Your task to perform on an android device: Search for Italian restaurants on Maps Image 0: 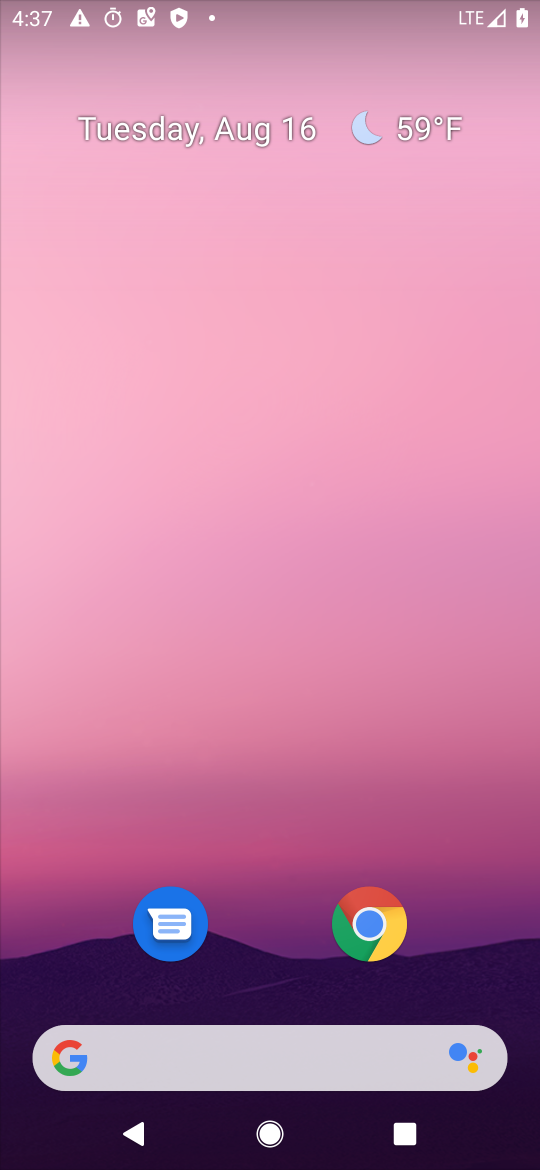
Step 0: drag from (301, 1003) to (315, 3)
Your task to perform on an android device: Search for Italian restaurants on Maps Image 1: 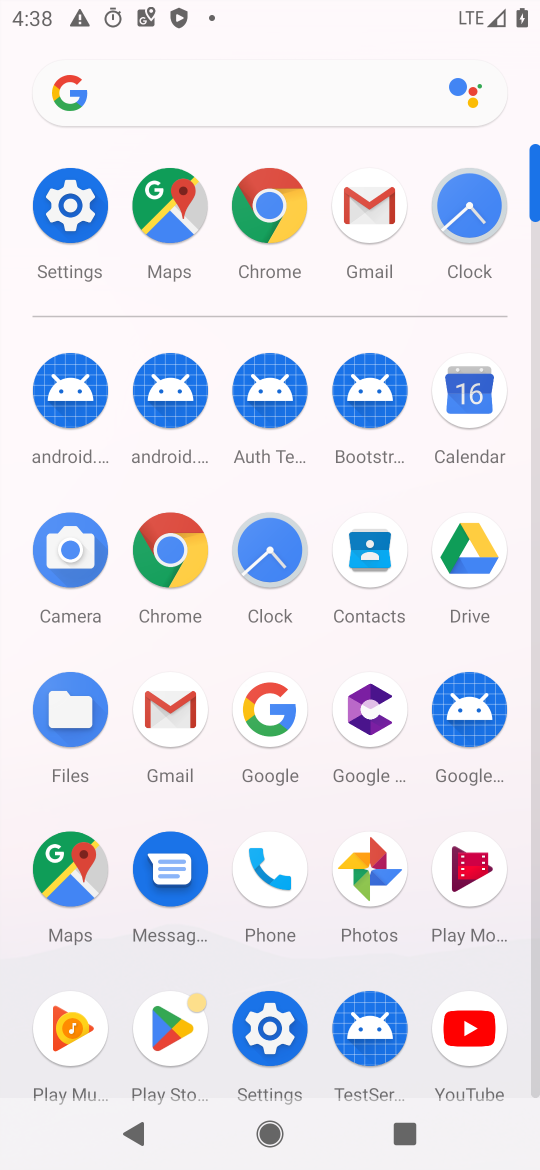
Step 1: click (101, 878)
Your task to perform on an android device: Search for Italian restaurants on Maps Image 2: 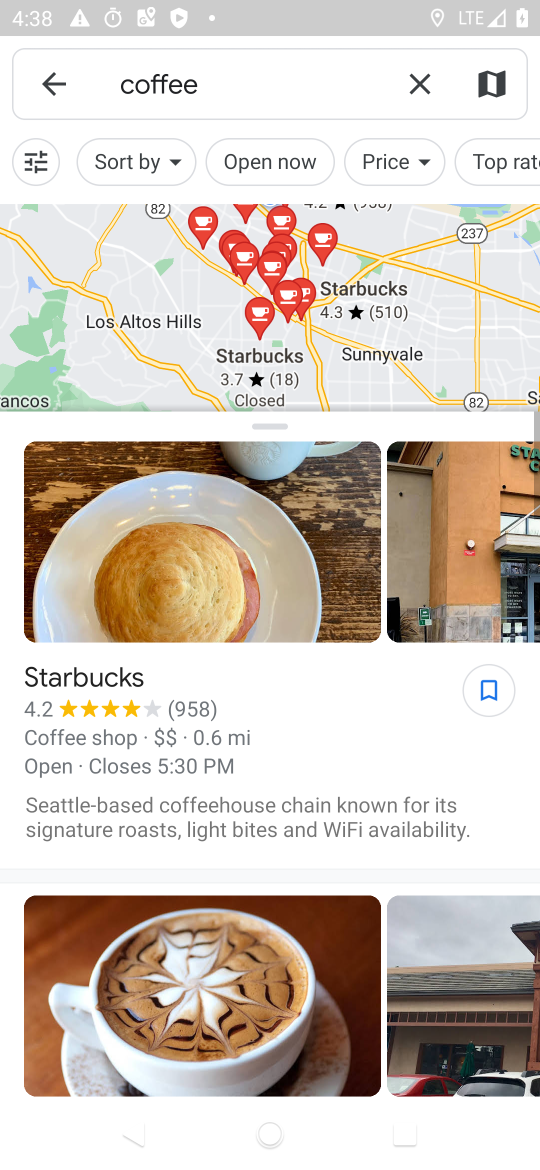
Step 2: click (408, 75)
Your task to perform on an android device: Search for Italian restaurants on Maps Image 3: 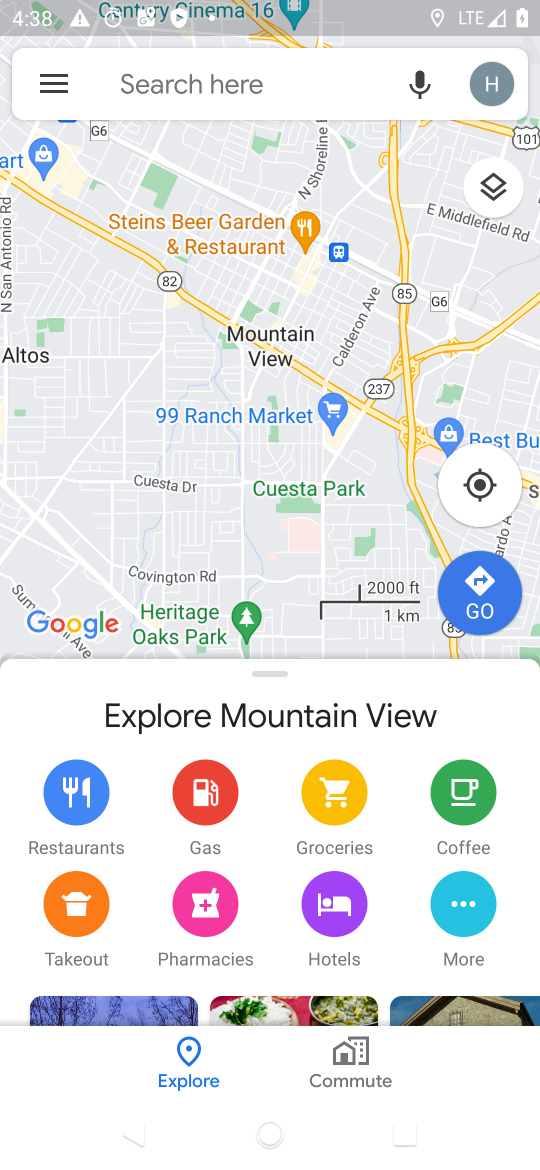
Step 3: click (343, 97)
Your task to perform on an android device: Search for Italian restaurants on Maps Image 4: 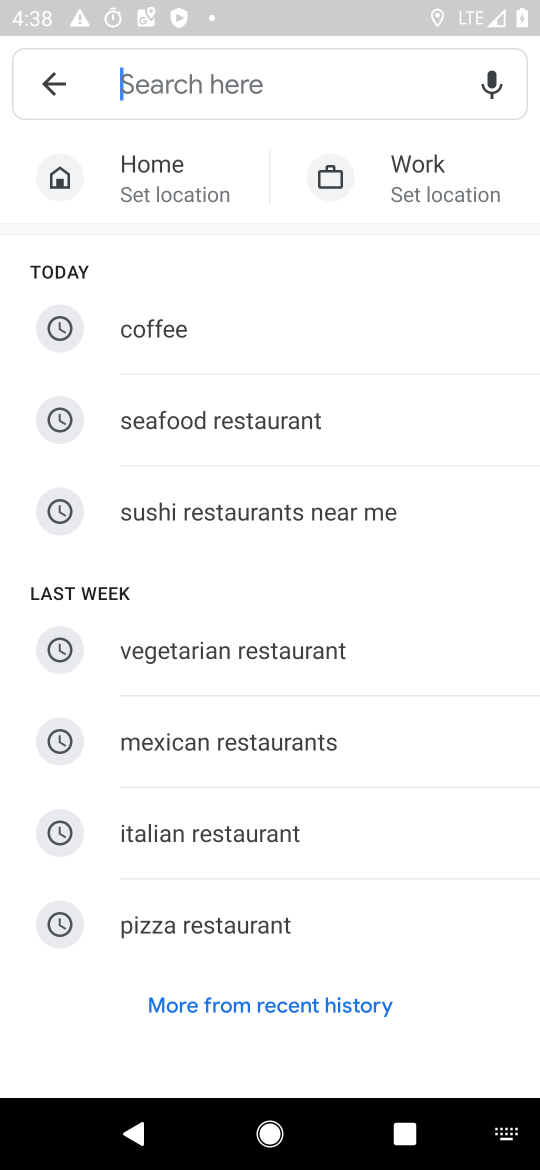
Step 4: click (282, 823)
Your task to perform on an android device: Search for Italian restaurants on Maps Image 5: 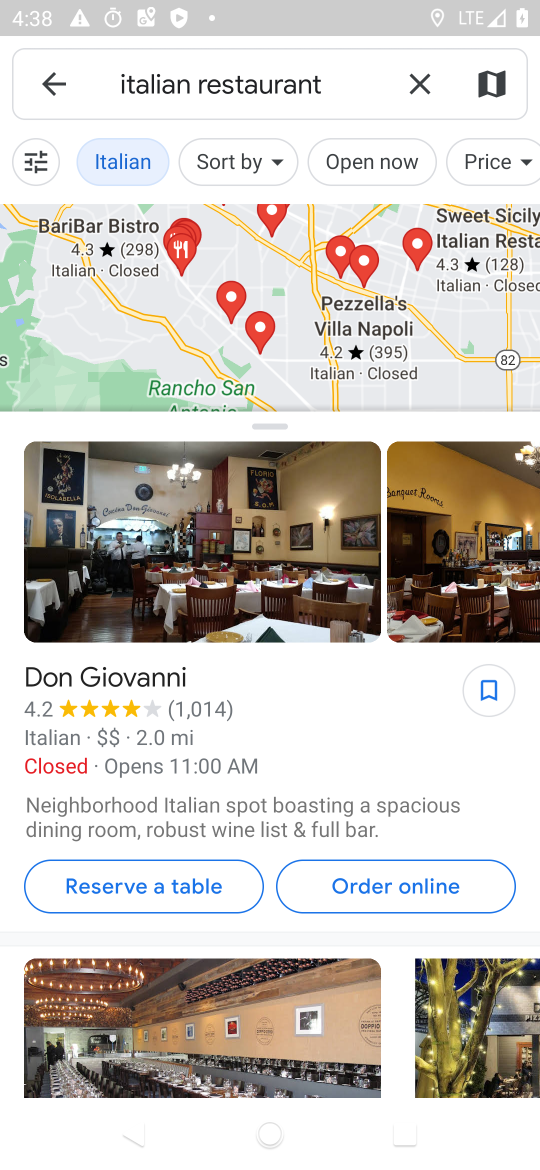
Step 5: task complete